Your task to perform on an android device: turn on showing notifications on the lock screen Image 0: 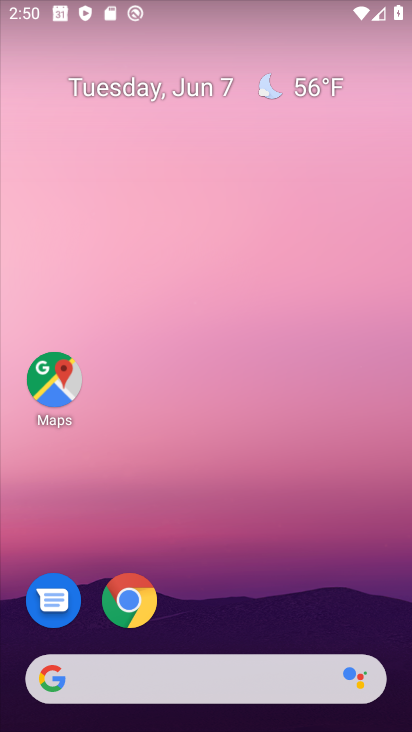
Step 0: drag from (397, 717) to (369, 47)
Your task to perform on an android device: turn on showing notifications on the lock screen Image 1: 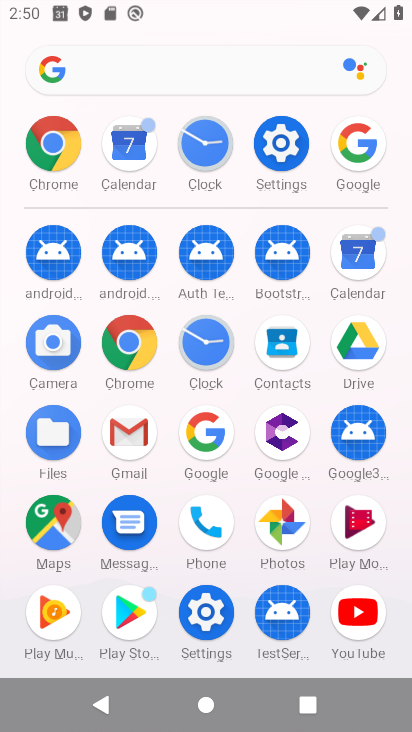
Step 1: click (292, 146)
Your task to perform on an android device: turn on showing notifications on the lock screen Image 2: 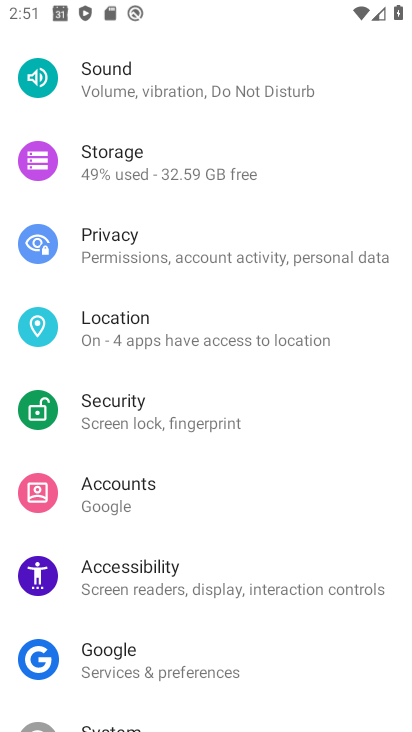
Step 2: click (141, 334)
Your task to perform on an android device: turn on showing notifications on the lock screen Image 3: 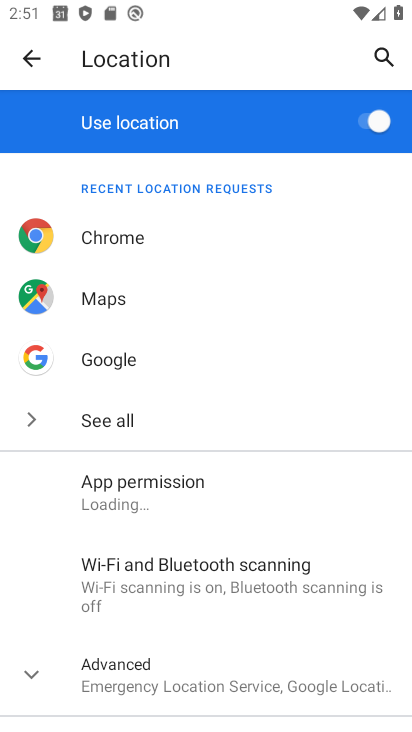
Step 3: click (24, 57)
Your task to perform on an android device: turn on showing notifications on the lock screen Image 4: 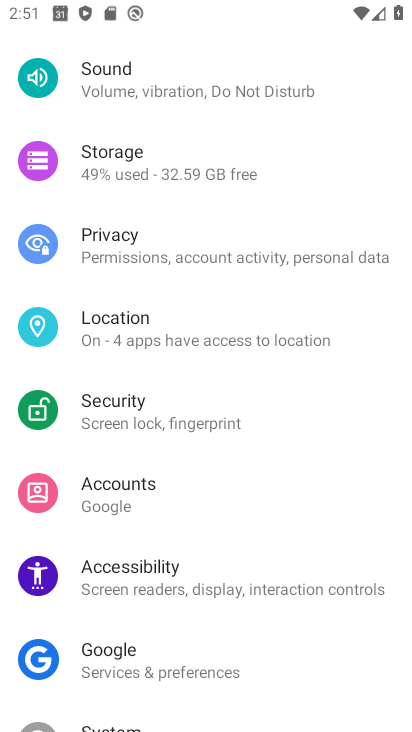
Step 4: drag from (264, 149) to (285, 623)
Your task to perform on an android device: turn on showing notifications on the lock screen Image 5: 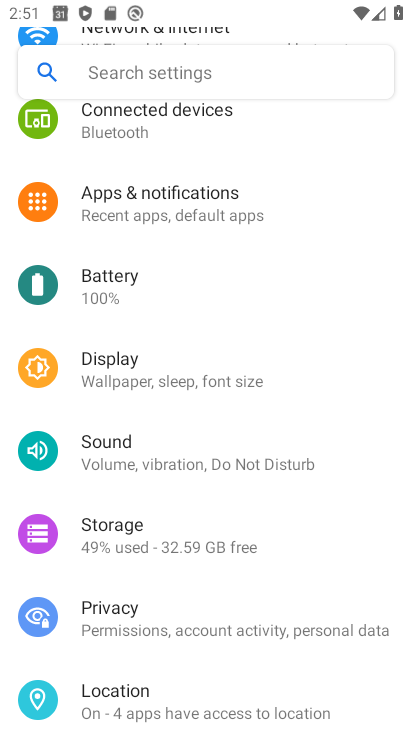
Step 5: click (146, 202)
Your task to perform on an android device: turn on showing notifications on the lock screen Image 6: 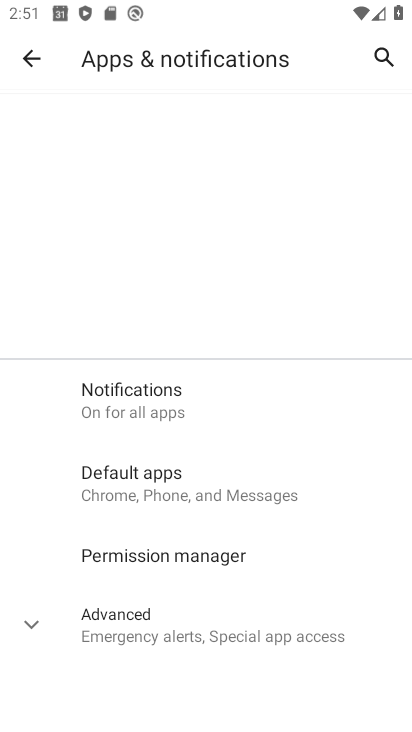
Step 6: click (134, 392)
Your task to perform on an android device: turn on showing notifications on the lock screen Image 7: 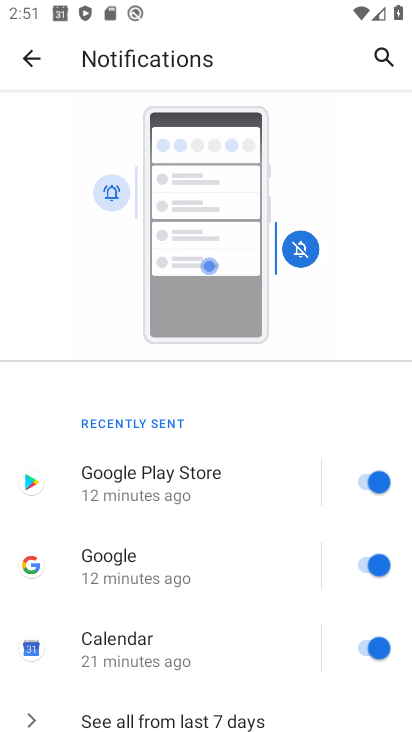
Step 7: drag from (237, 622) to (231, 261)
Your task to perform on an android device: turn on showing notifications on the lock screen Image 8: 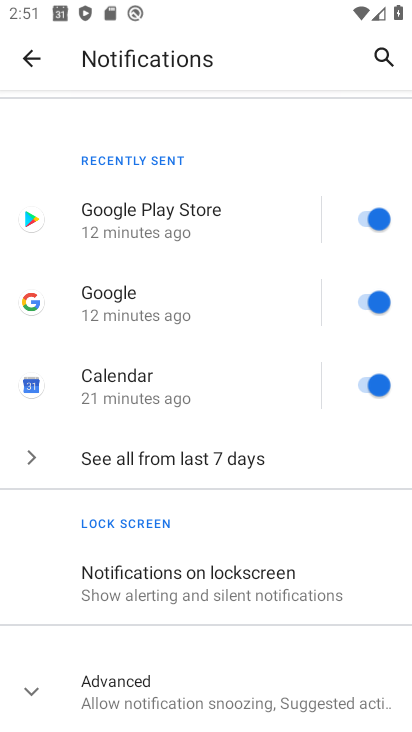
Step 8: click (243, 711)
Your task to perform on an android device: turn on showing notifications on the lock screen Image 9: 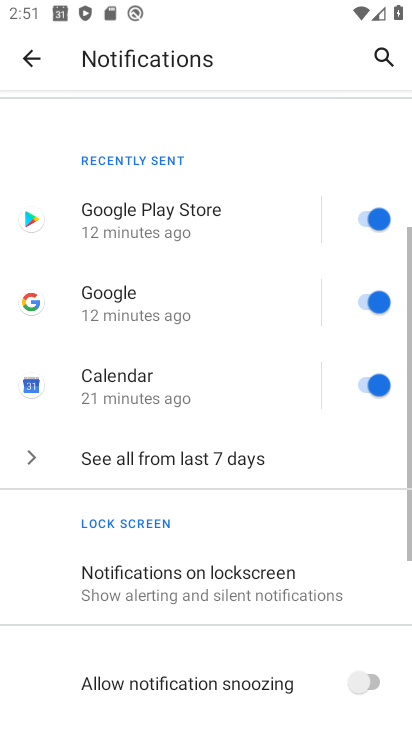
Step 9: click (139, 588)
Your task to perform on an android device: turn on showing notifications on the lock screen Image 10: 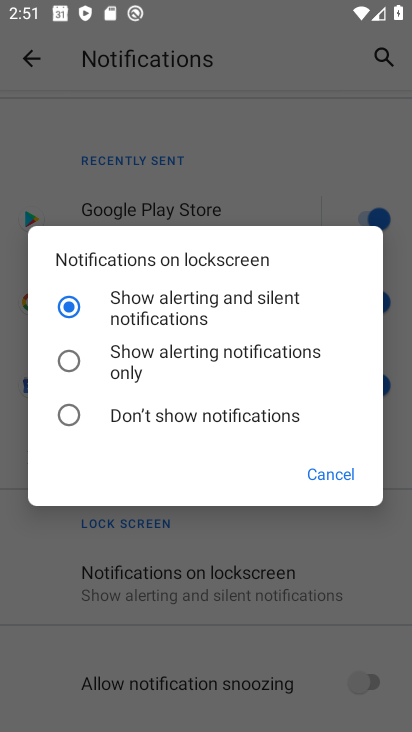
Step 10: task complete